Your task to perform on an android device: Show the shopping cart on costco. Add bose soundsport free to the cart on costco, then select checkout. Image 0: 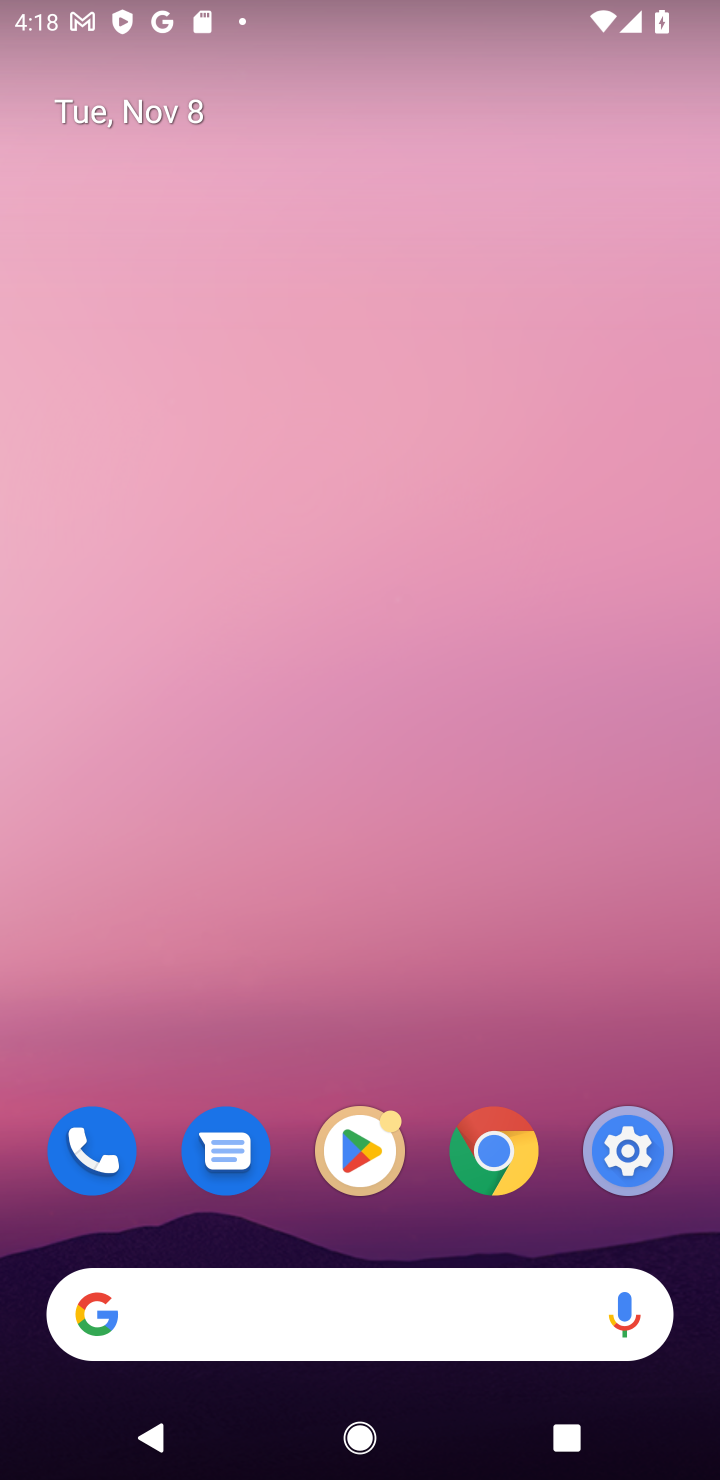
Step 0: drag from (416, 1258) to (710, 807)
Your task to perform on an android device: Show the shopping cart on costco. Add bose soundsport free to the cart on costco, then select checkout. Image 1: 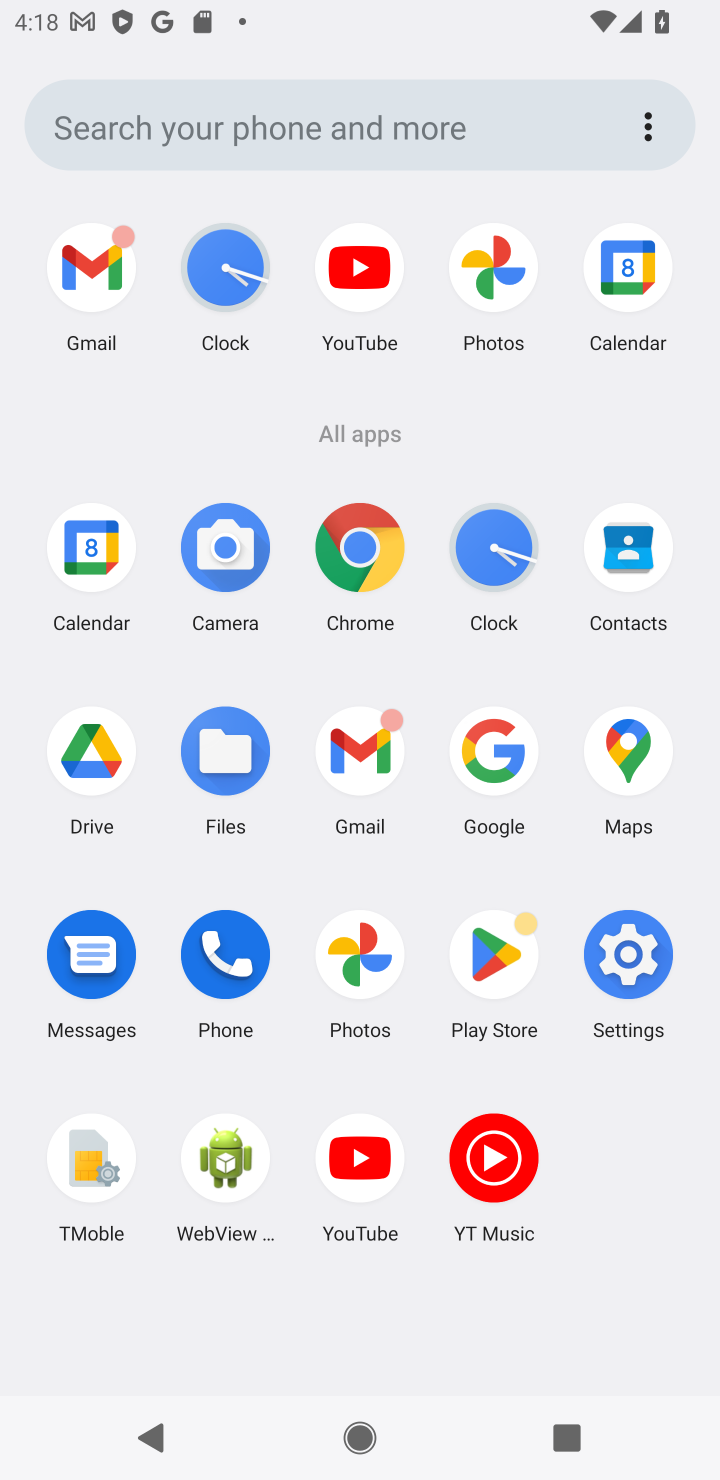
Step 1: click (363, 533)
Your task to perform on an android device: Show the shopping cart on costco. Add bose soundsport free to the cart on costco, then select checkout. Image 2: 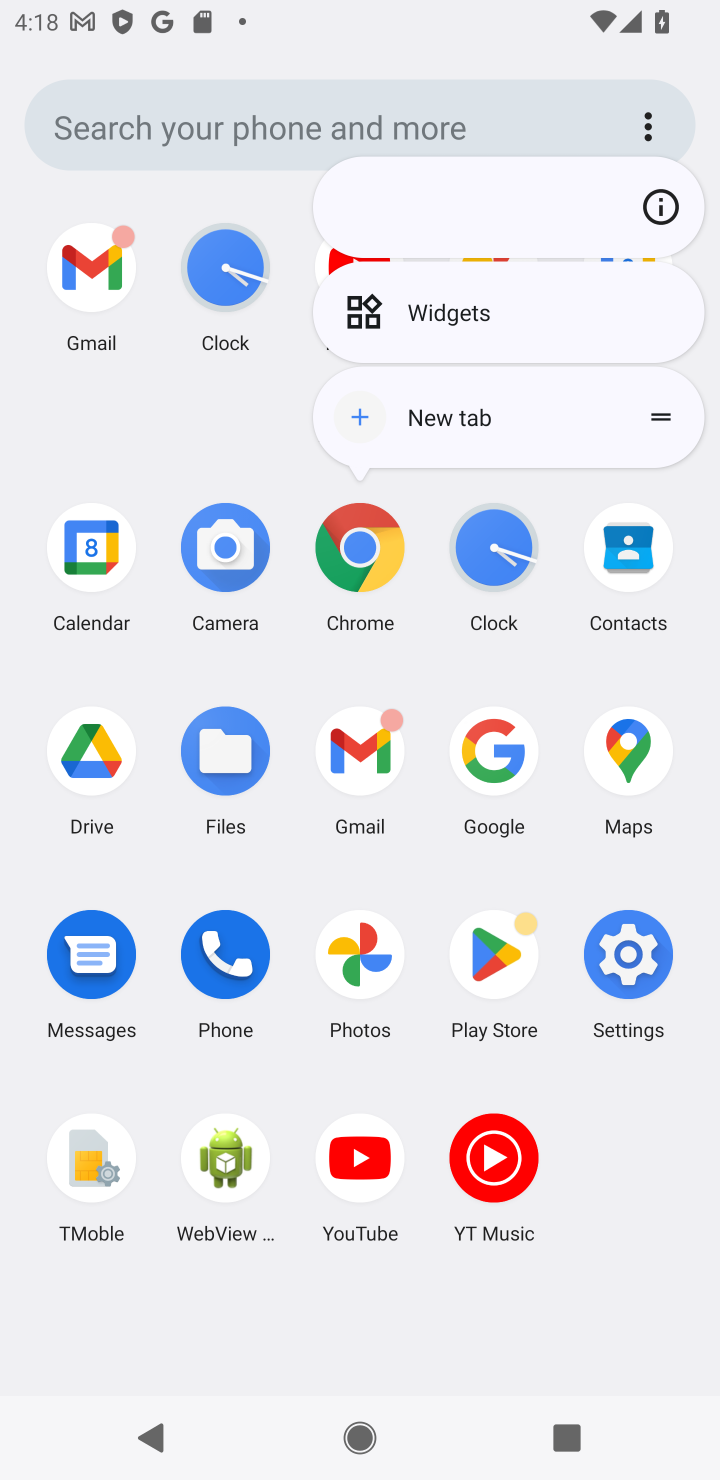
Step 2: click (337, 561)
Your task to perform on an android device: Show the shopping cart on costco. Add bose soundsport free to the cart on costco, then select checkout. Image 3: 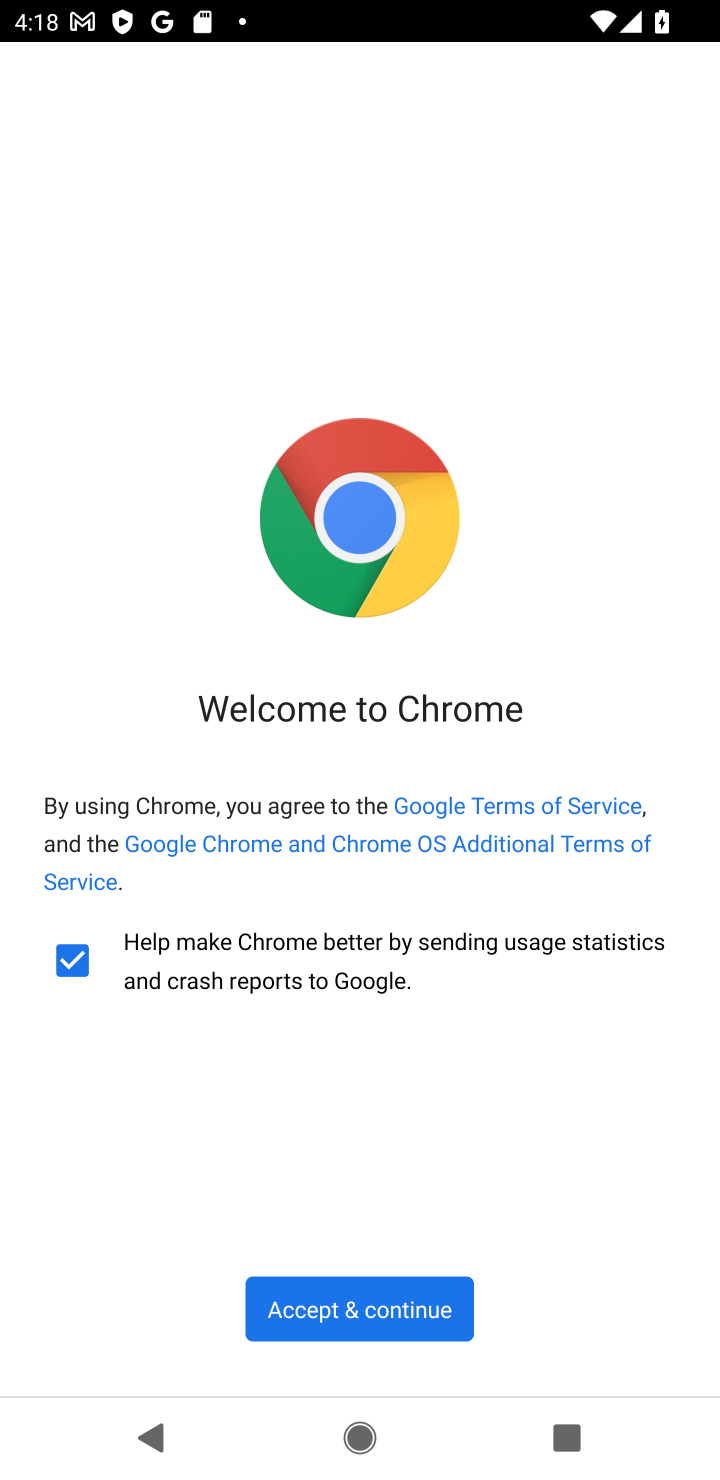
Step 3: click (336, 1306)
Your task to perform on an android device: Show the shopping cart on costco. Add bose soundsport free to the cart on costco, then select checkout. Image 4: 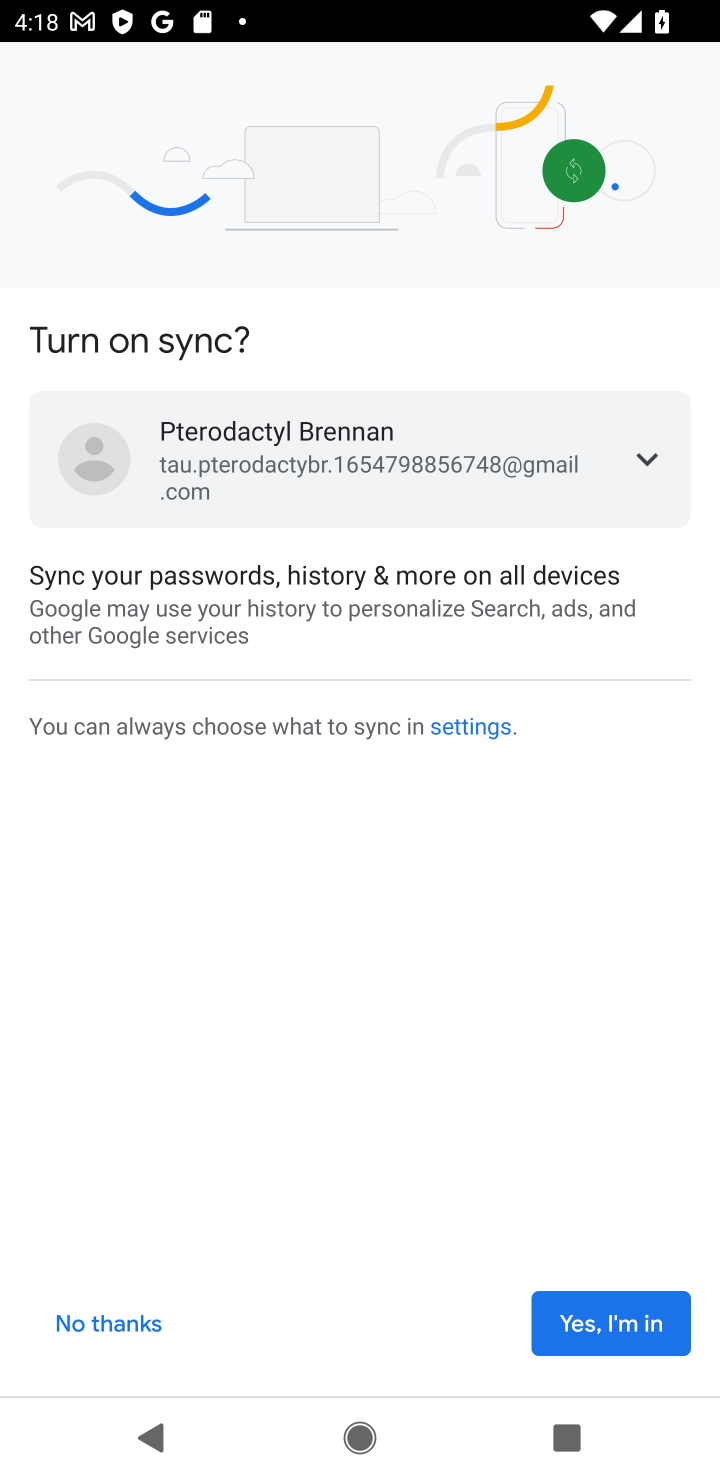
Step 4: click (624, 1333)
Your task to perform on an android device: Show the shopping cart on costco. Add bose soundsport free to the cart on costco, then select checkout. Image 5: 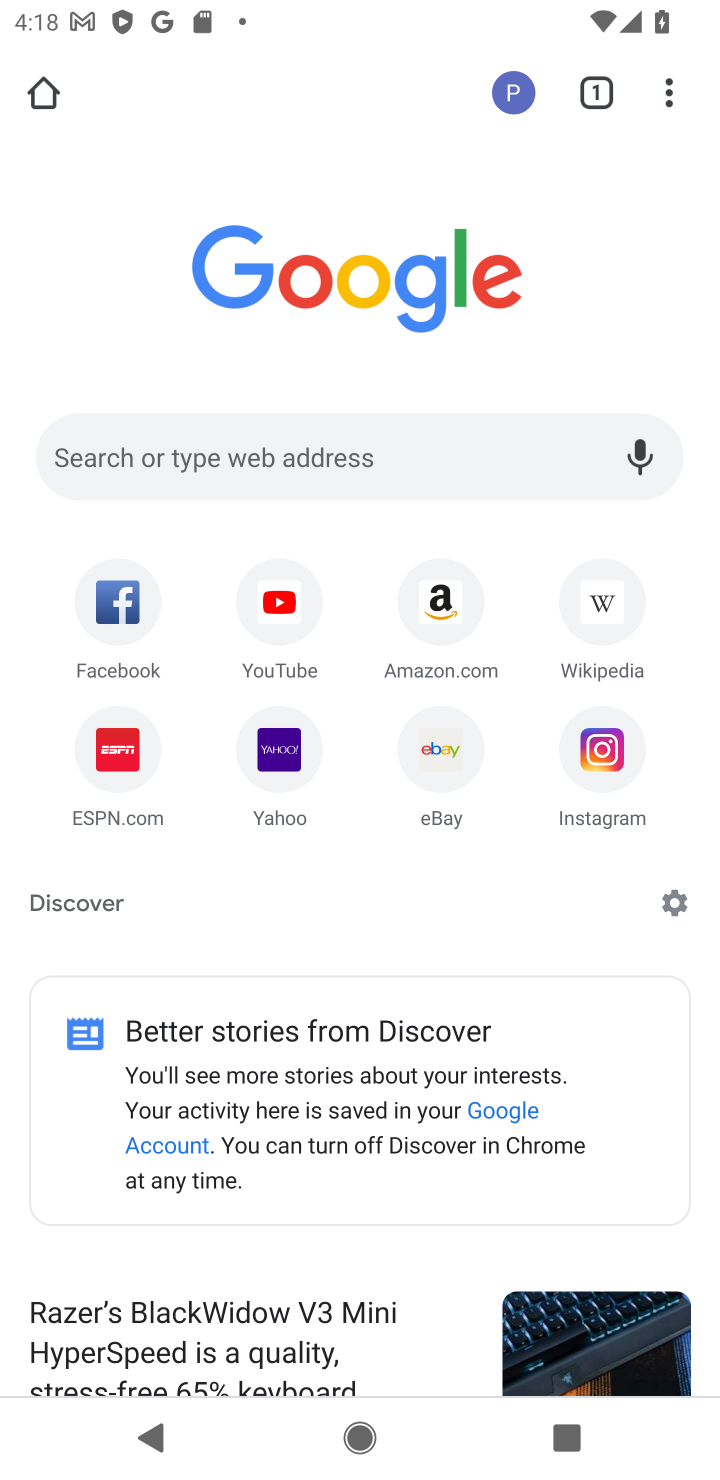
Step 5: click (433, 449)
Your task to perform on an android device: Show the shopping cart on costco. Add bose soundsport free to the cart on costco, then select checkout. Image 6: 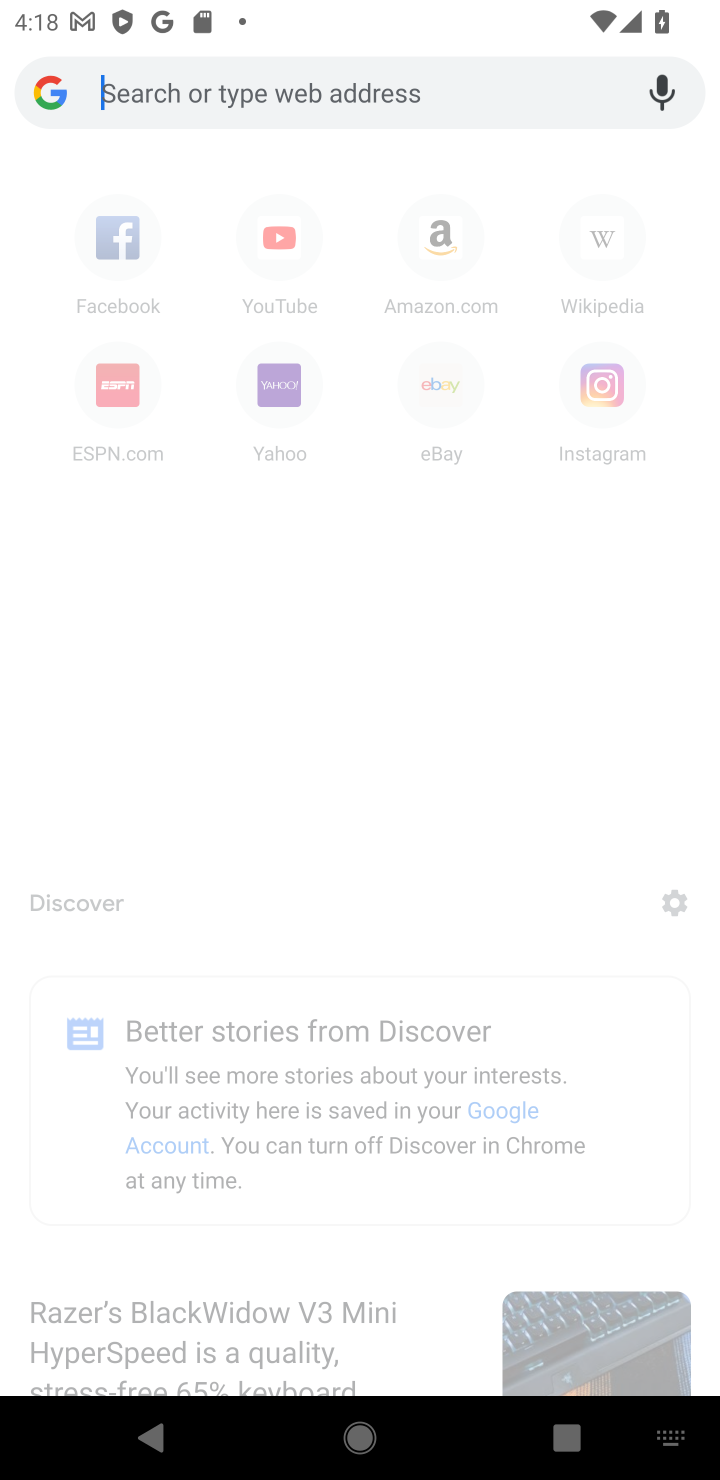
Step 6: type "costco.com"
Your task to perform on an android device: Show the shopping cart on costco. Add bose soundsport free to the cart on costco, then select checkout. Image 7: 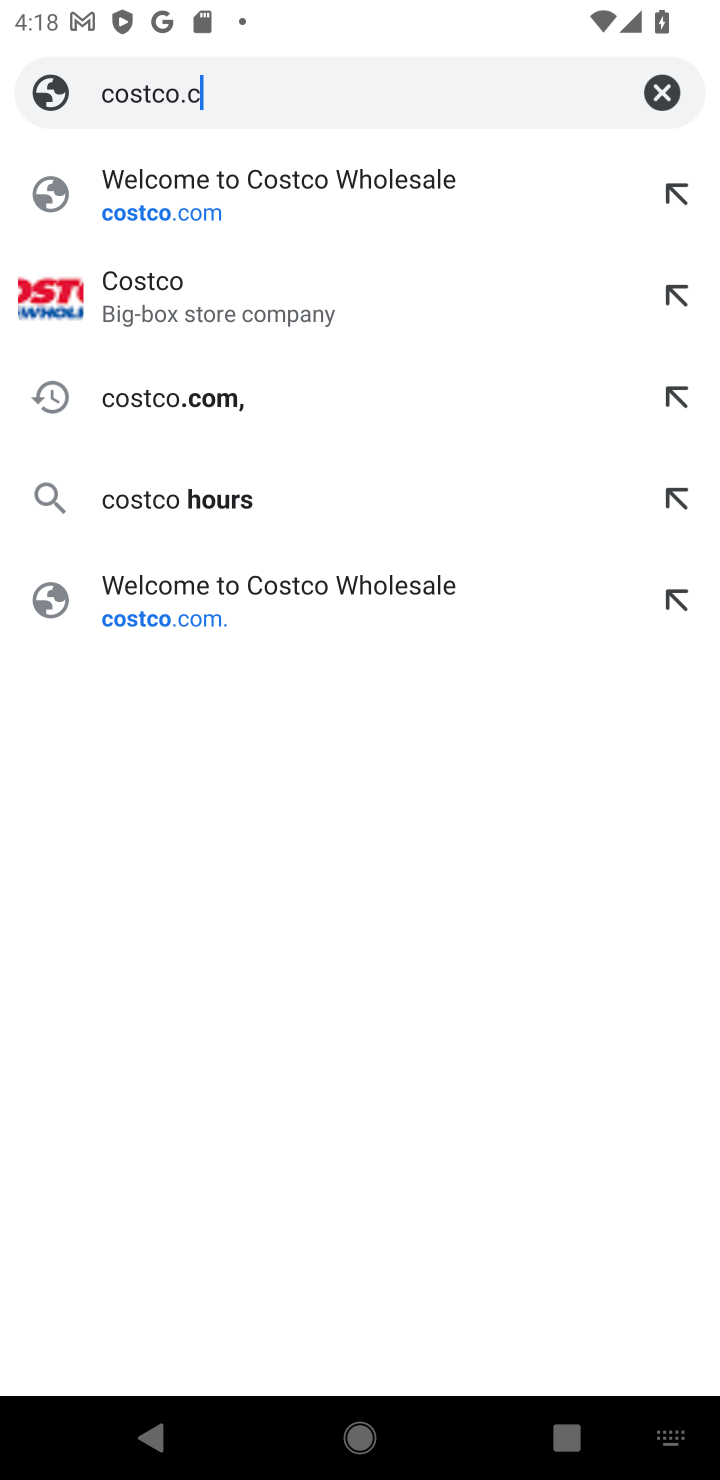
Step 7: press enter
Your task to perform on an android device: Show the shopping cart on costco. Add bose soundsport free to the cart on costco, then select checkout. Image 8: 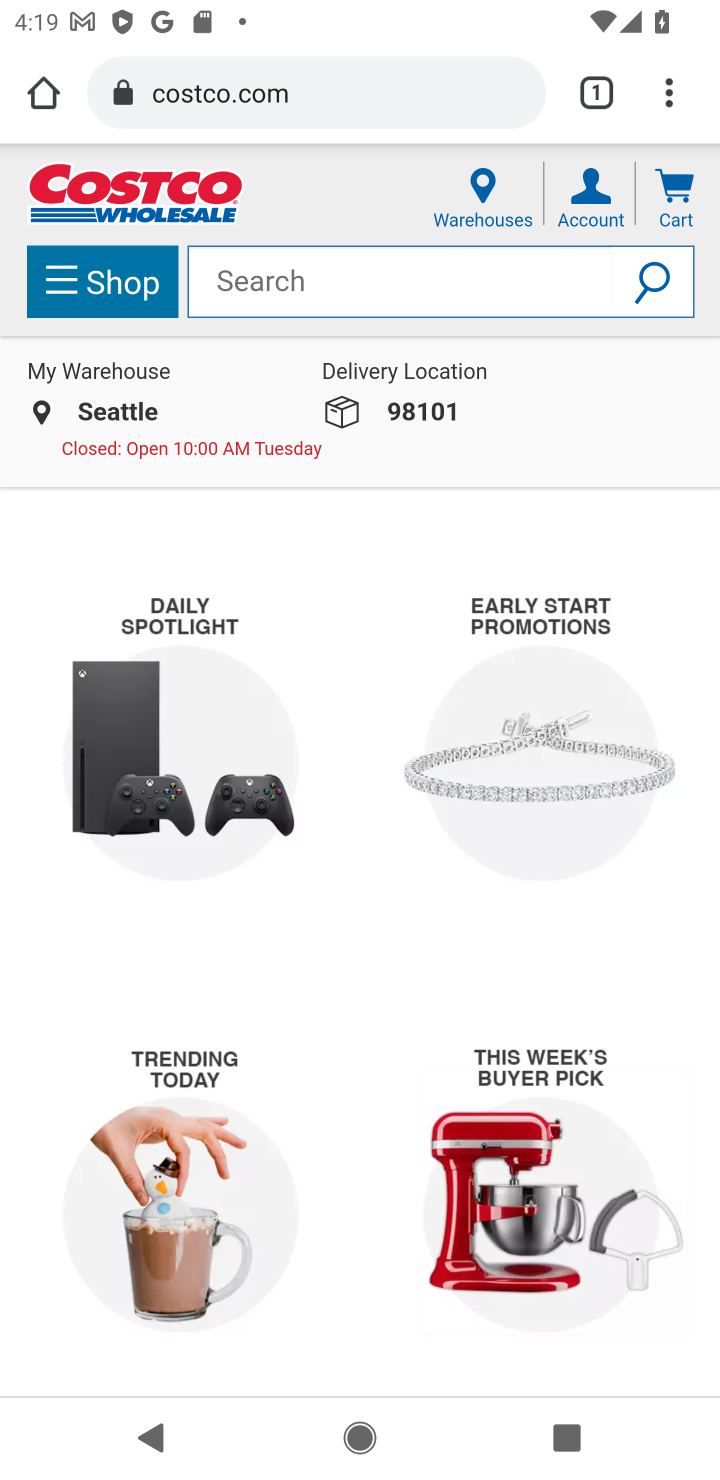
Step 8: click (690, 199)
Your task to perform on an android device: Show the shopping cart on costco. Add bose soundsport free to the cart on costco, then select checkout. Image 9: 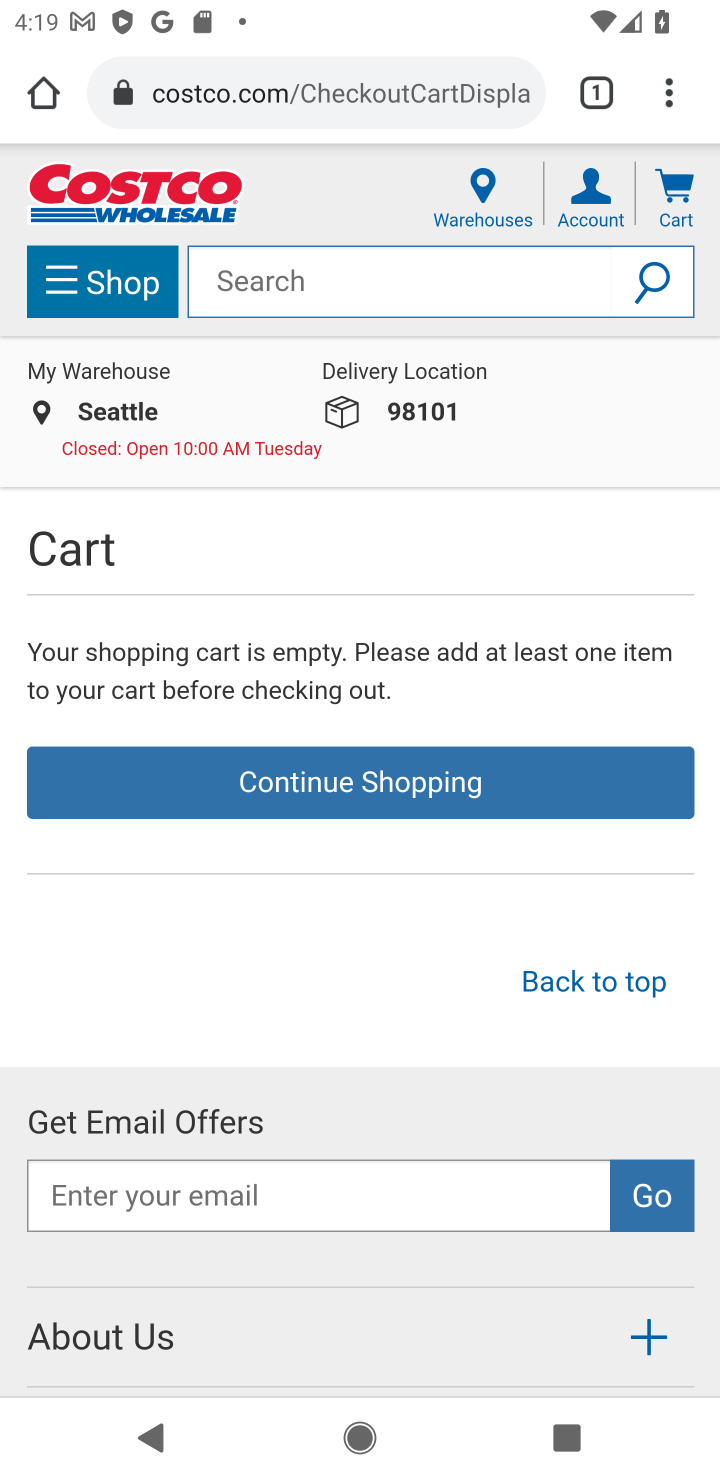
Step 9: click (511, 281)
Your task to perform on an android device: Show the shopping cart on costco. Add bose soundsport free to the cart on costco, then select checkout. Image 10: 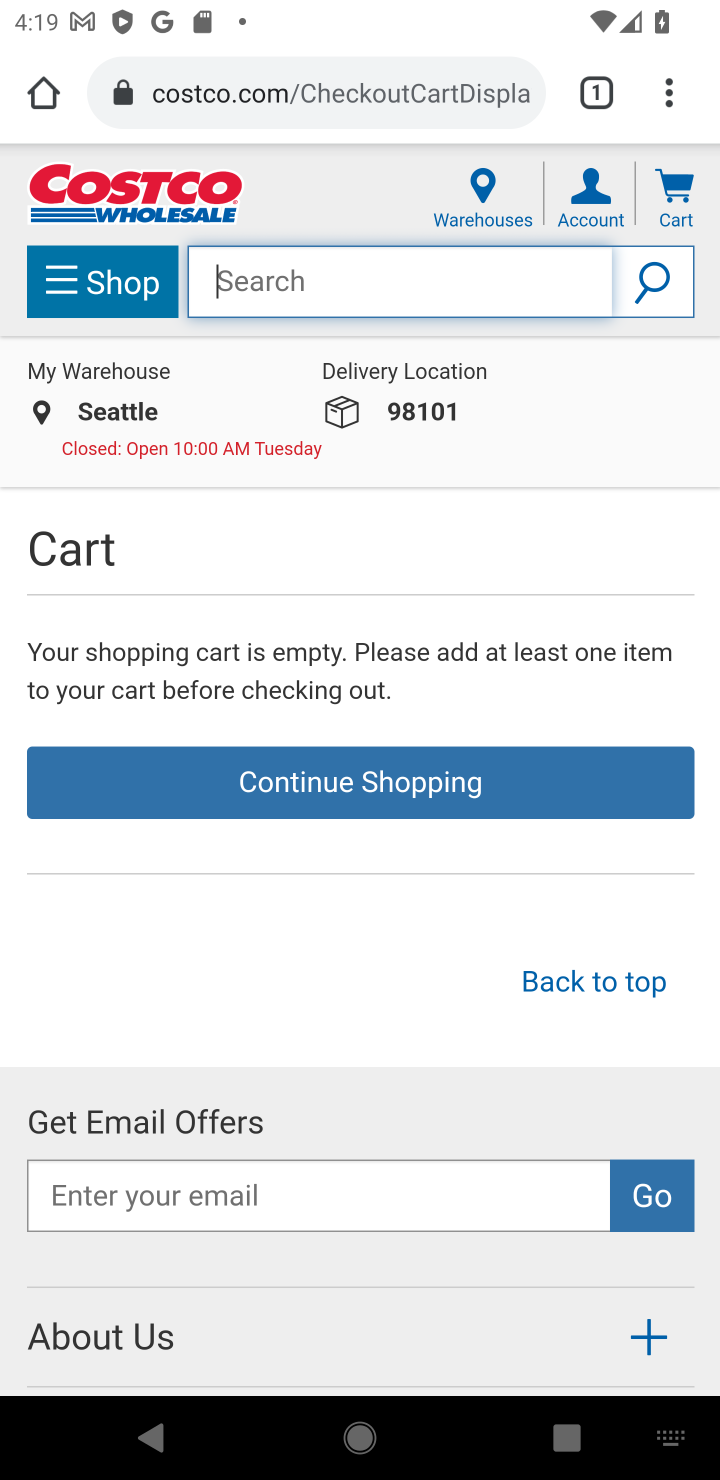
Step 10: type "soundsport free"
Your task to perform on an android device: Show the shopping cart on costco. Add bose soundsport free to the cart on costco, then select checkout. Image 11: 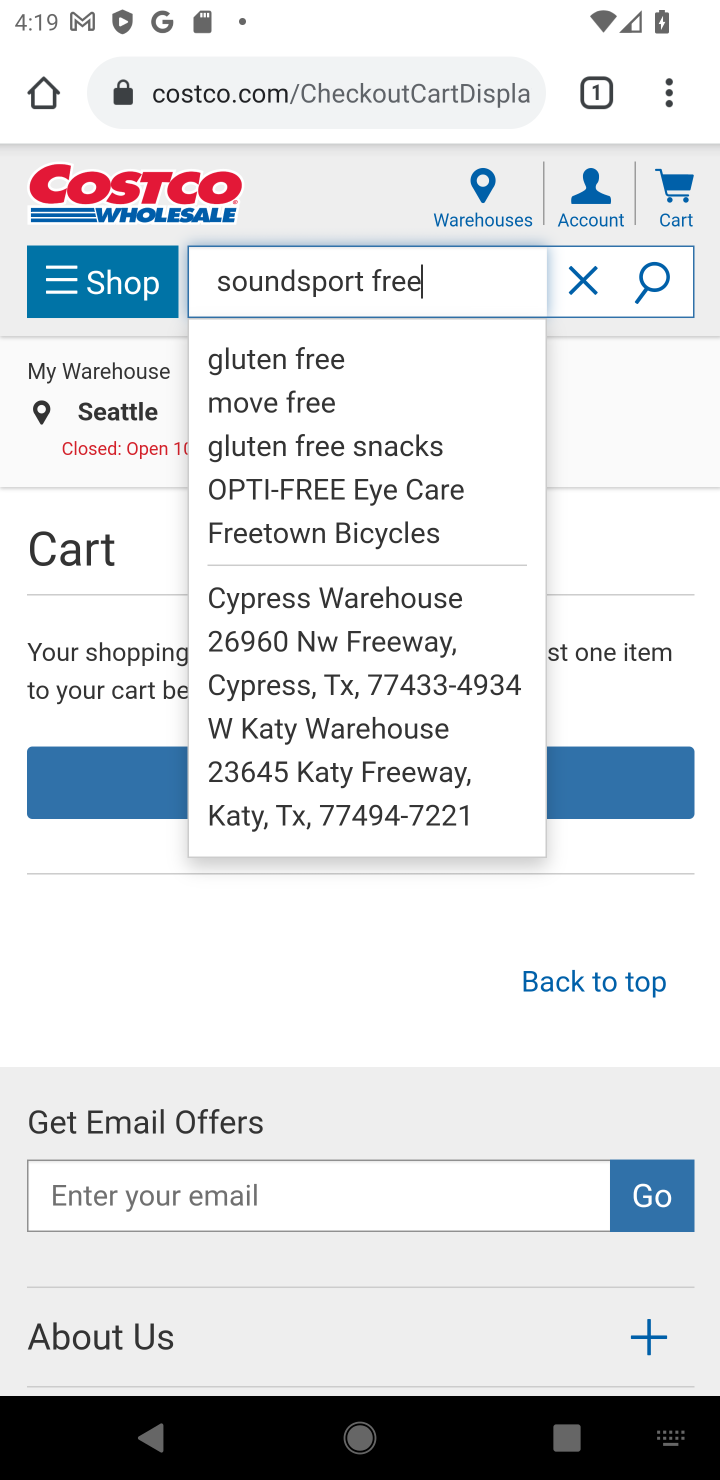
Step 11: press enter
Your task to perform on an android device: Show the shopping cart on costco. Add bose soundsport free to the cart on costco, then select checkout. Image 12: 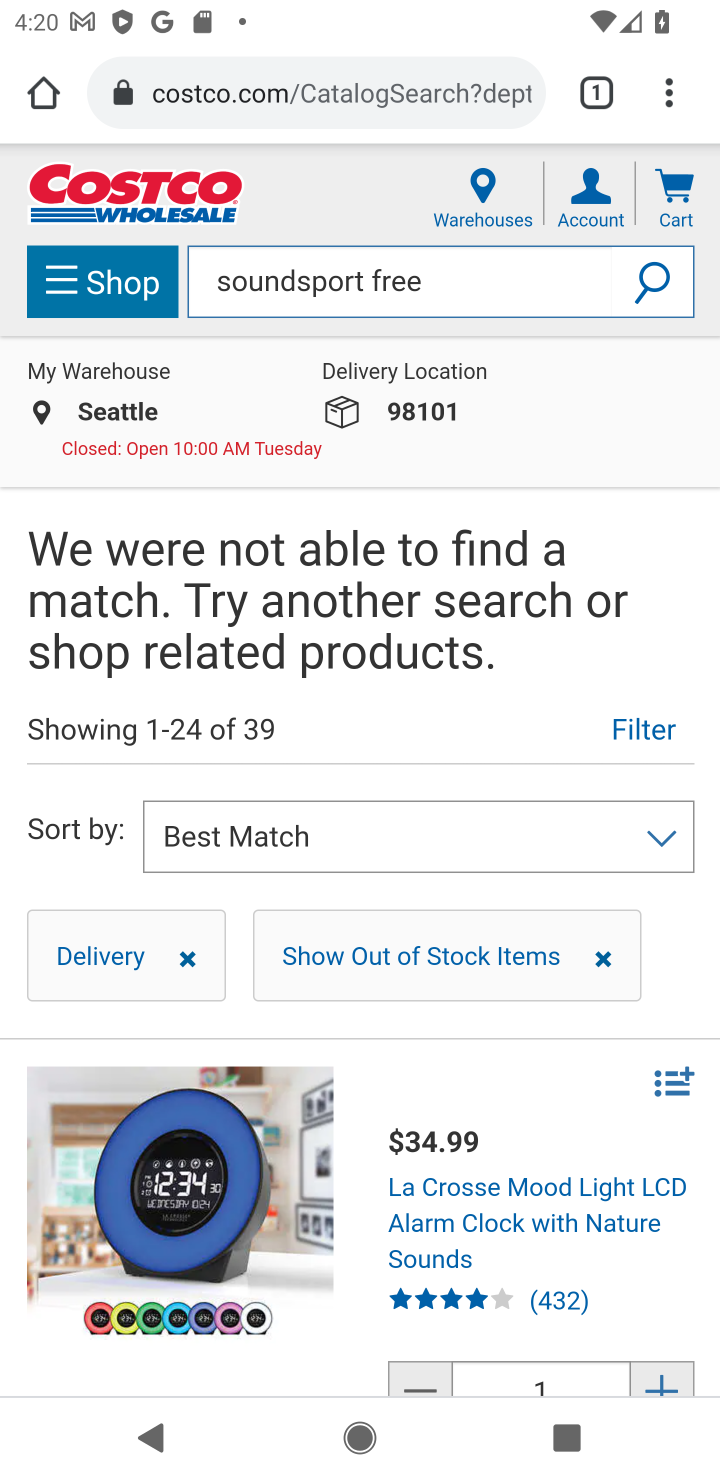
Step 12: task complete